Your task to perform on an android device: read, delete, or share a saved page in the chrome app Image 0: 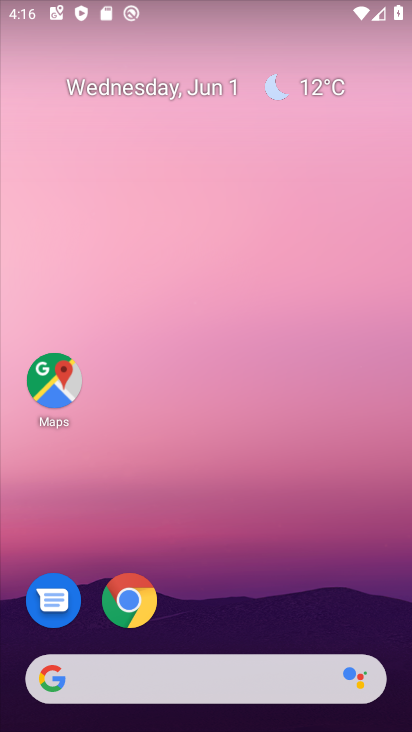
Step 0: click (133, 602)
Your task to perform on an android device: read, delete, or share a saved page in the chrome app Image 1: 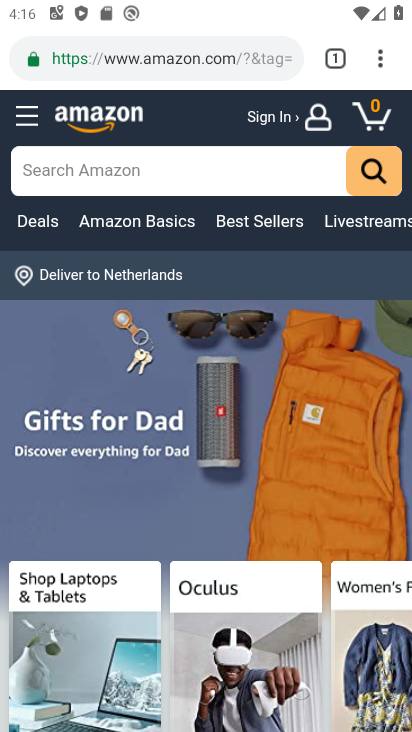
Step 1: click (378, 68)
Your task to perform on an android device: read, delete, or share a saved page in the chrome app Image 2: 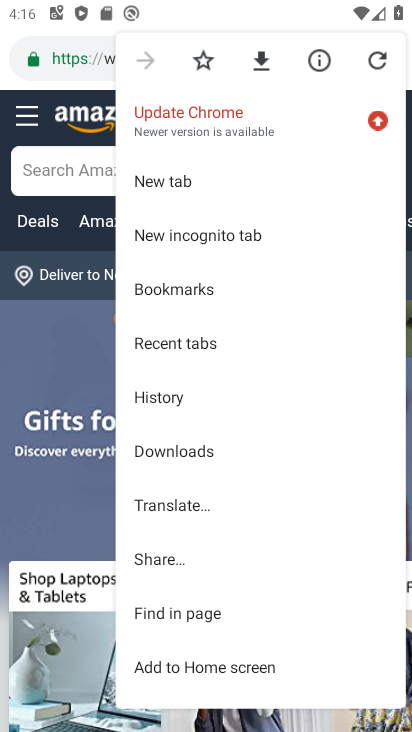
Step 2: click (170, 452)
Your task to perform on an android device: read, delete, or share a saved page in the chrome app Image 3: 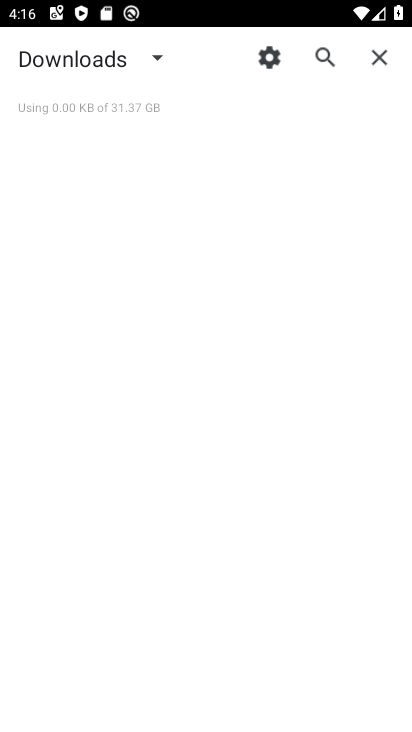
Step 3: click (157, 58)
Your task to perform on an android device: read, delete, or share a saved page in the chrome app Image 4: 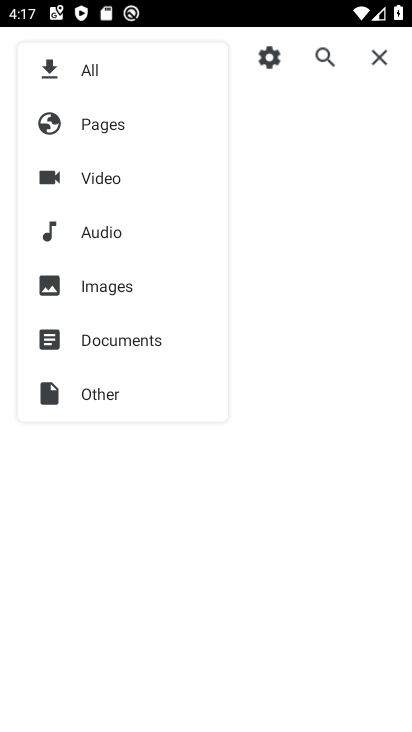
Step 4: click (91, 122)
Your task to perform on an android device: read, delete, or share a saved page in the chrome app Image 5: 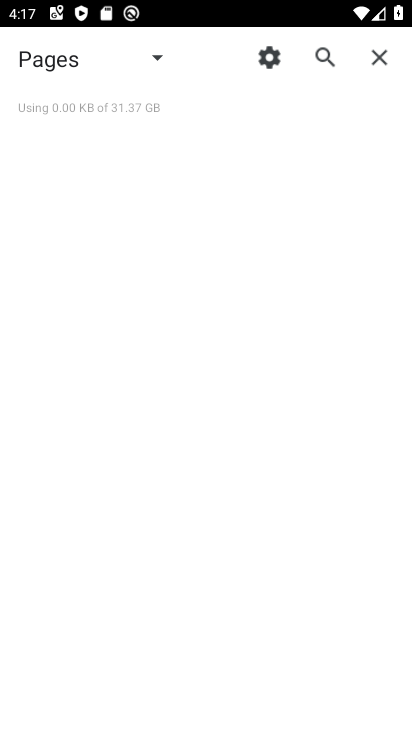
Step 5: task complete